Your task to perform on an android device: star an email in the gmail app Image 0: 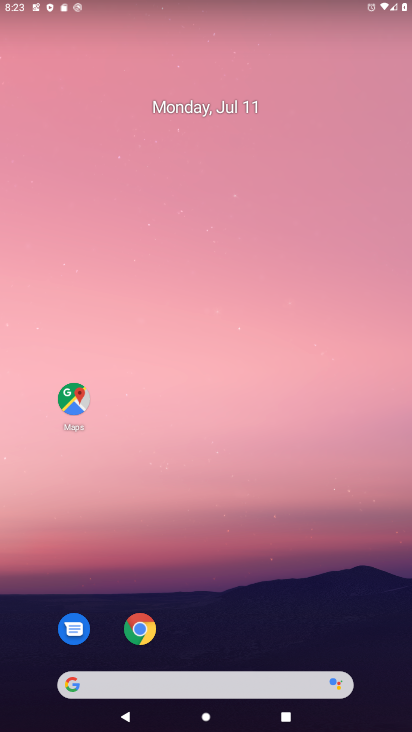
Step 0: drag from (193, 647) to (206, 133)
Your task to perform on an android device: star an email in the gmail app Image 1: 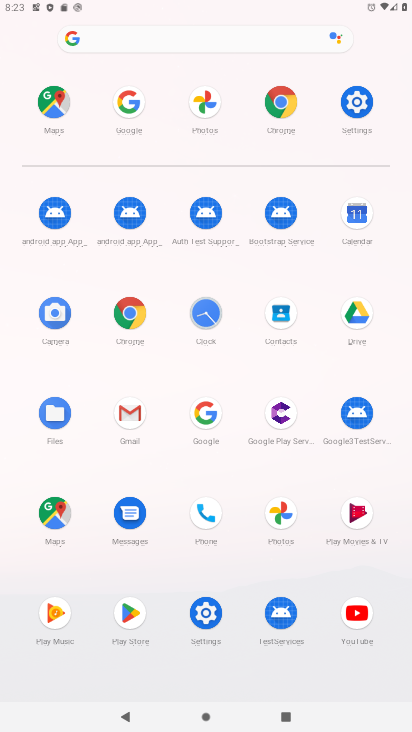
Step 1: click (125, 410)
Your task to perform on an android device: star an email in the gmail app Image 2: 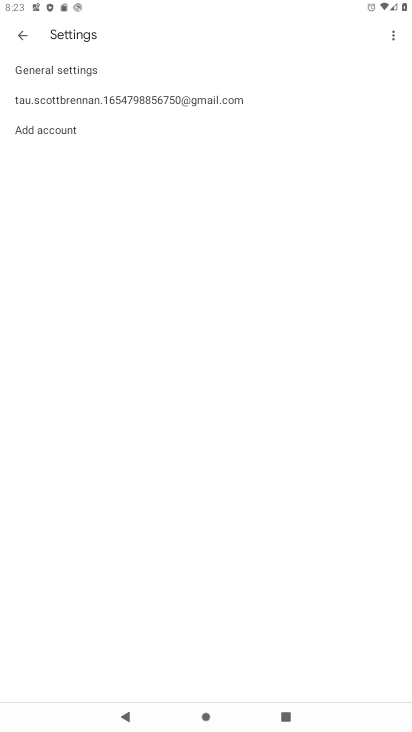
Step 2: press back button
Your task to perform on an android device: star an email in the gmail app Image 3: 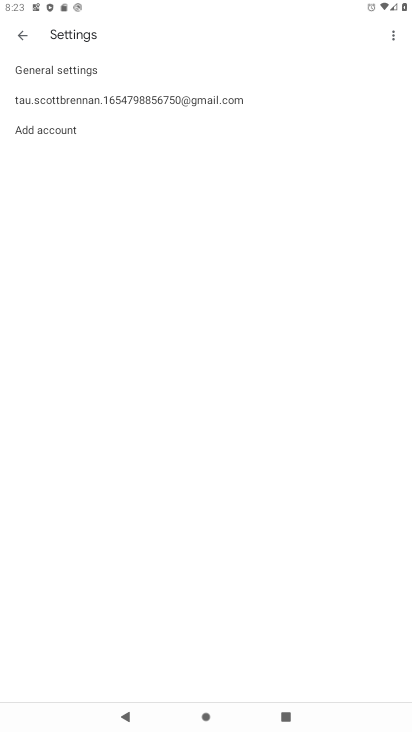
Step 3: press back button
Your task to perform on an android device: star an email in the gmail app Image 4: 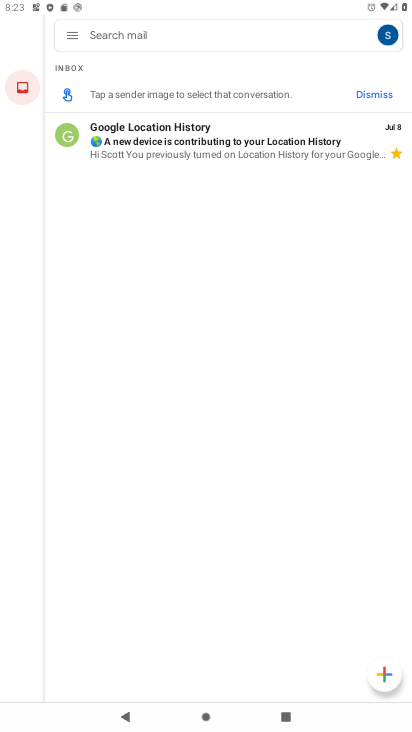
Step 4: click (68, 37)
Your task to perform on an android device: star an email in the gmail app Image 5: 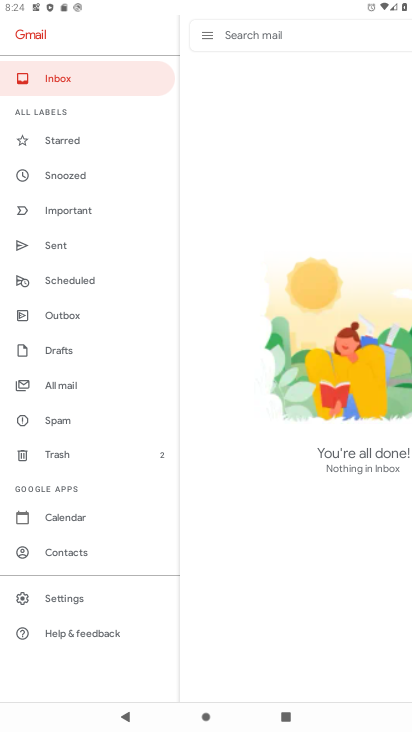
Step 5: click (59, 389)
Your task to perform on an android device: star an email in the gmail app Image 6: 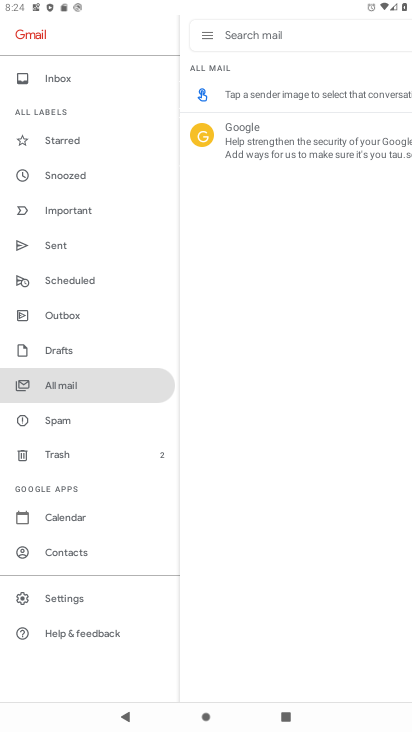
Step 6: task complete